Your task to perform on an android device: What's the weather? Image 0: 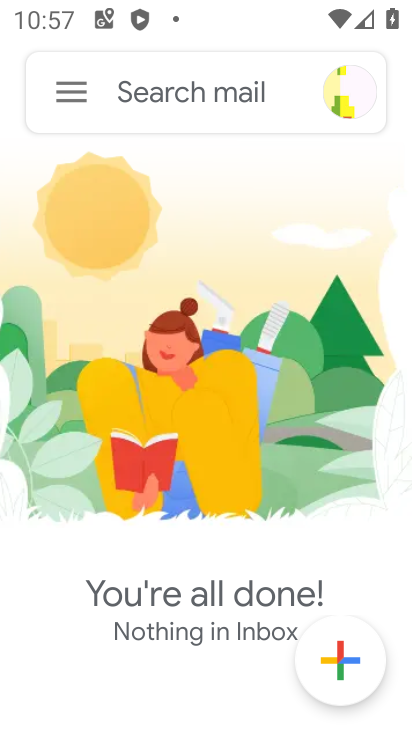
Step 0: press home button
Your task to perform on an android device: What's the weather? Image 1: 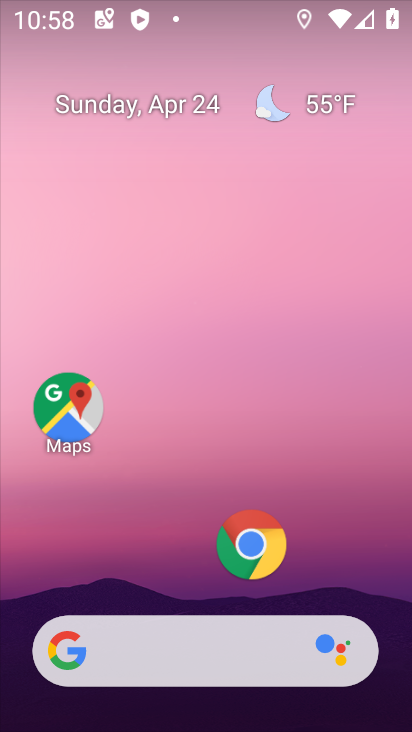
Step 1: drag from (184, 578) to (184, 157)
Your task to perform on an android device: What's the weather? Image 2: 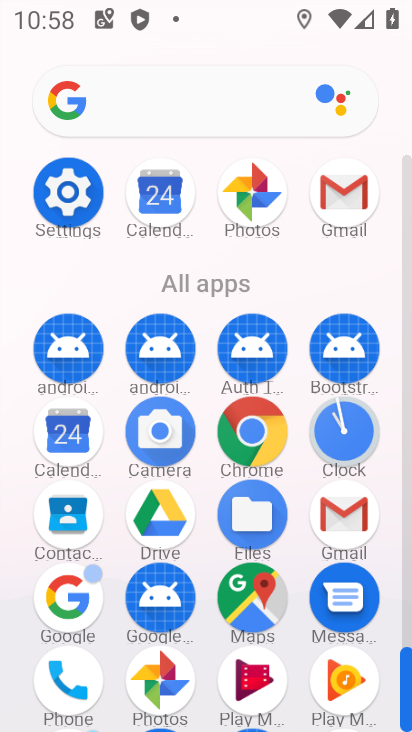
Step 2: click (65, 605)
Your task to perform on an android device: What's the weather? Image 3: 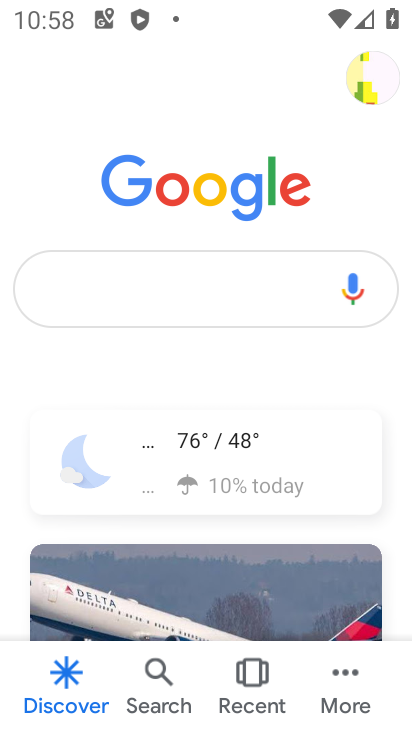
Step 3: click (169, 472)
Your task to perform on an android device: What's the weather? Image 4: 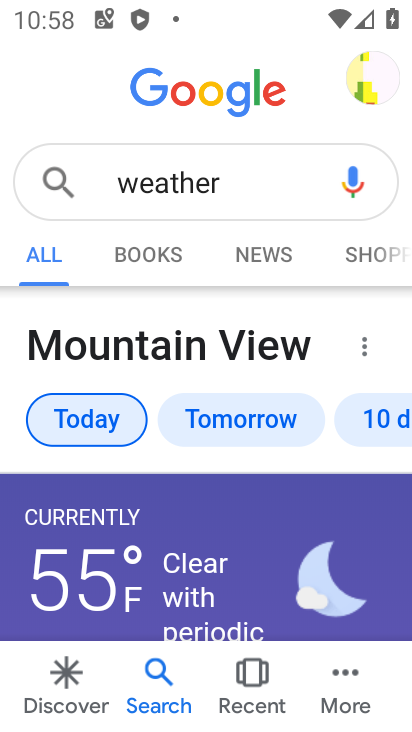
Step 4: task complete